Your task to perform on an android device: Set the phone to "Do not disturb". Image 0: 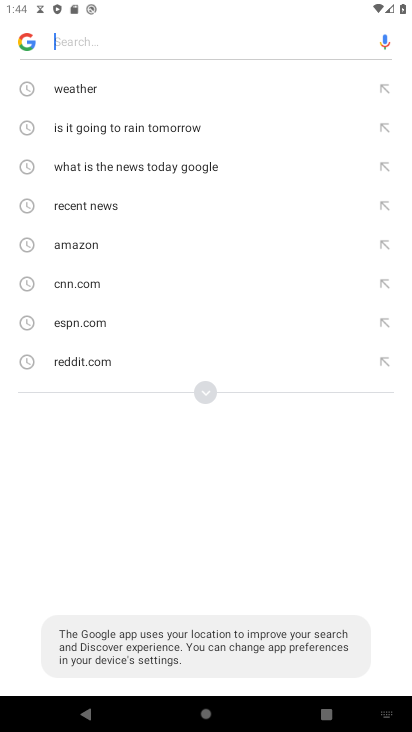
Step 0: drag from (93, 9) to (96, 588)
Your task to perform on an android device: Set the phone to "Do not disturb". Image 1: 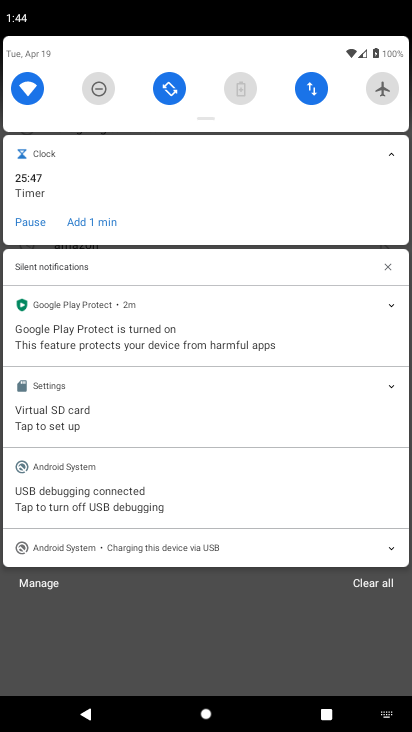
Step 1: press home button
Your task to perform on an android device: Set the phone to "Do not disturb". Image 2: 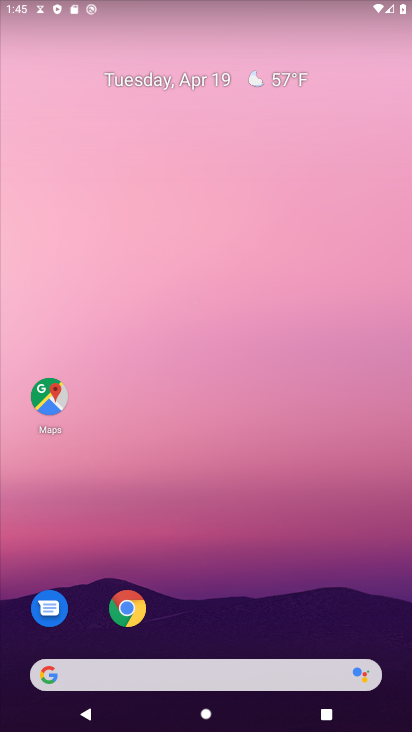
Step 2: drag from (113, 18) to (182, 561)
Your task to perform on an android device: Set the phone to "Do not disturb". Image 3: 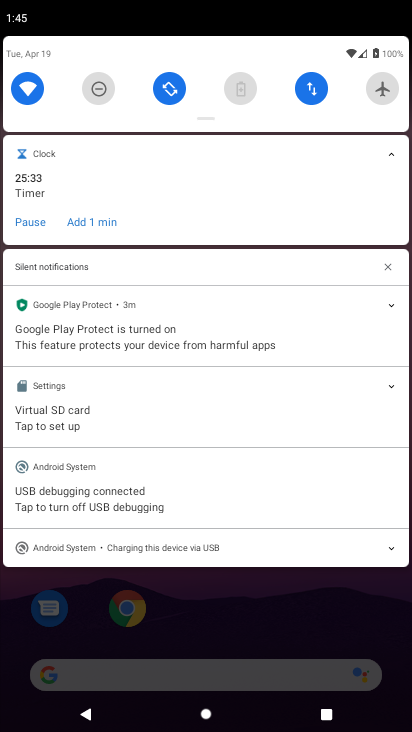
Step 3: drag from (138, 191) to (187, 643)
Your task to perform on an android device: Set the phone to "Do not disturb". Image 4: 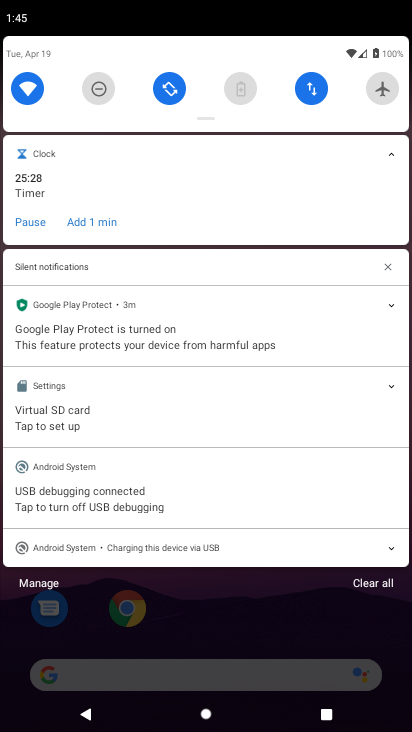
Step 4: click (96, 85)
Your task to perform on an android device: Set the phone to "Do not disturb". Image 5: 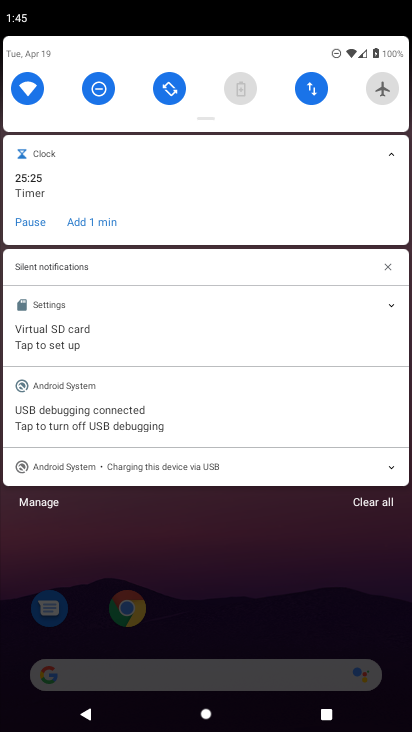
Step 5: task complete